Your task to perform on an android device: Empty the shopping cart on bestbuy.com. Search for "acer nitro" on bestbuy.com, select the first entry, add it to the cart, then select checkout. Image 0: 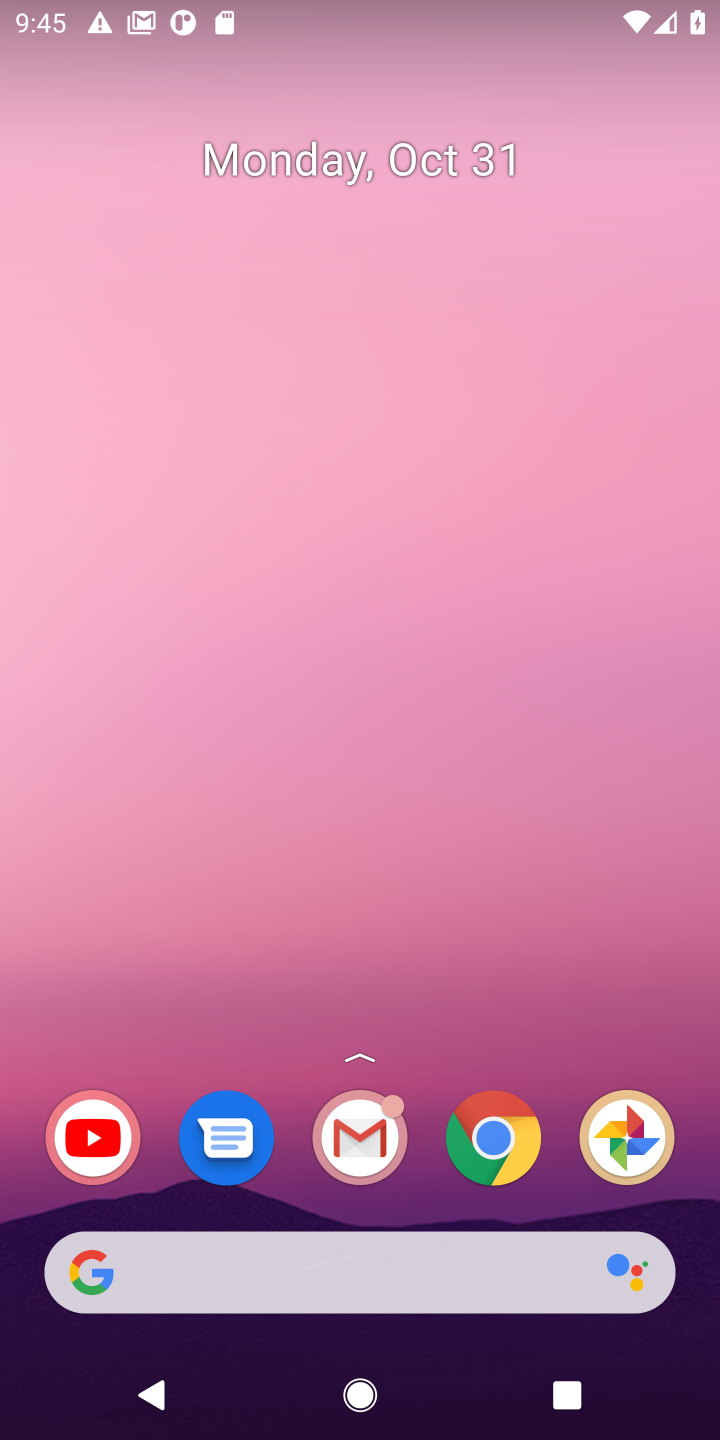
Step 0: drag from (441, 1345) to (407, 152)
Your task to perform on an android device: Empty the shopping cart on bestbuy.com. Search for "acer nitro" on bestbuy.com, select the first entry, add it to the cart, then select checkout. Image 1: 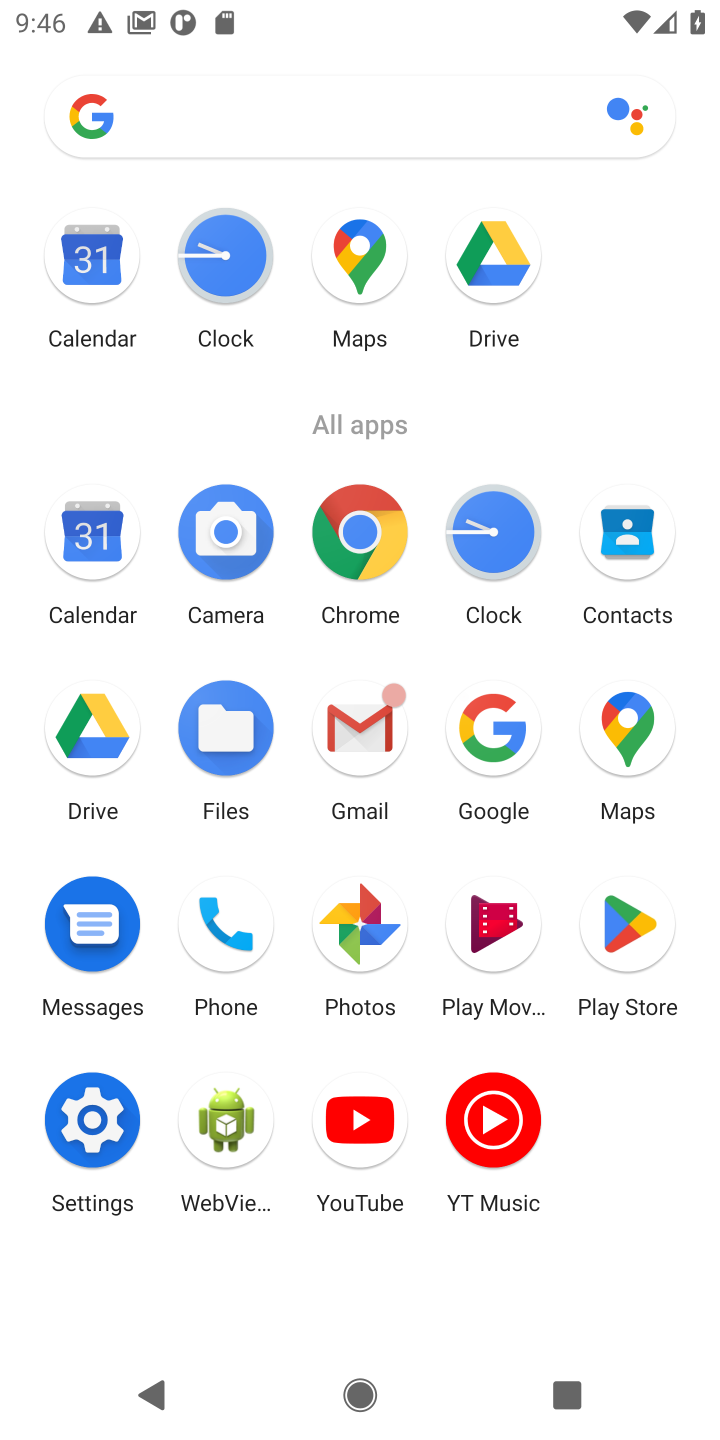
Step 1: click (369, 538)
Your task to perform on an android device: Empty the shopping cart on bestbuy.com. Search for "acer nitro" on bestbuy.com, select the first entry, add it to the cart, then select checkout. Image 2: 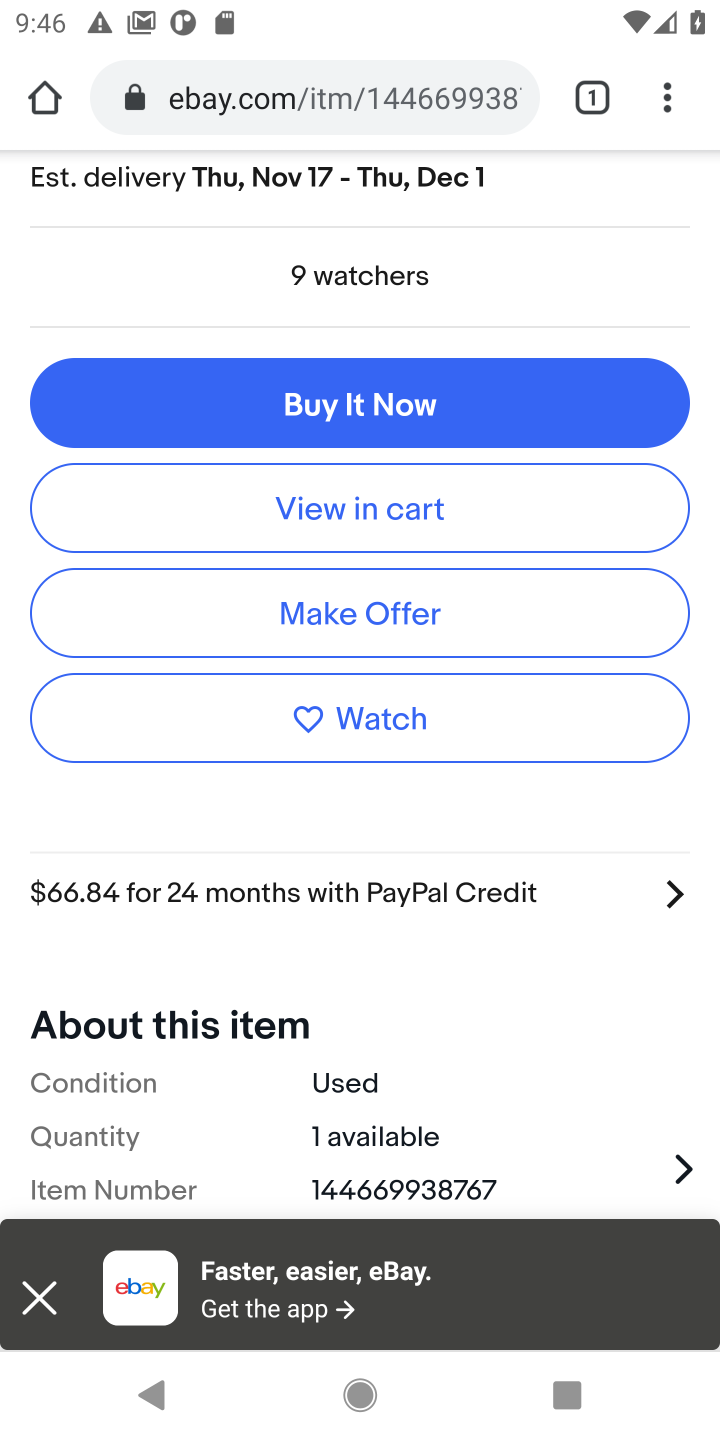
Step 2: click (367, 98)
Your task to perform on an android device: Empty the shopping cart on bestbuy.com. Search for "acer nitro" on bestbuy.com, select the first entry, add it to the cart, then select checkout. Image 3: 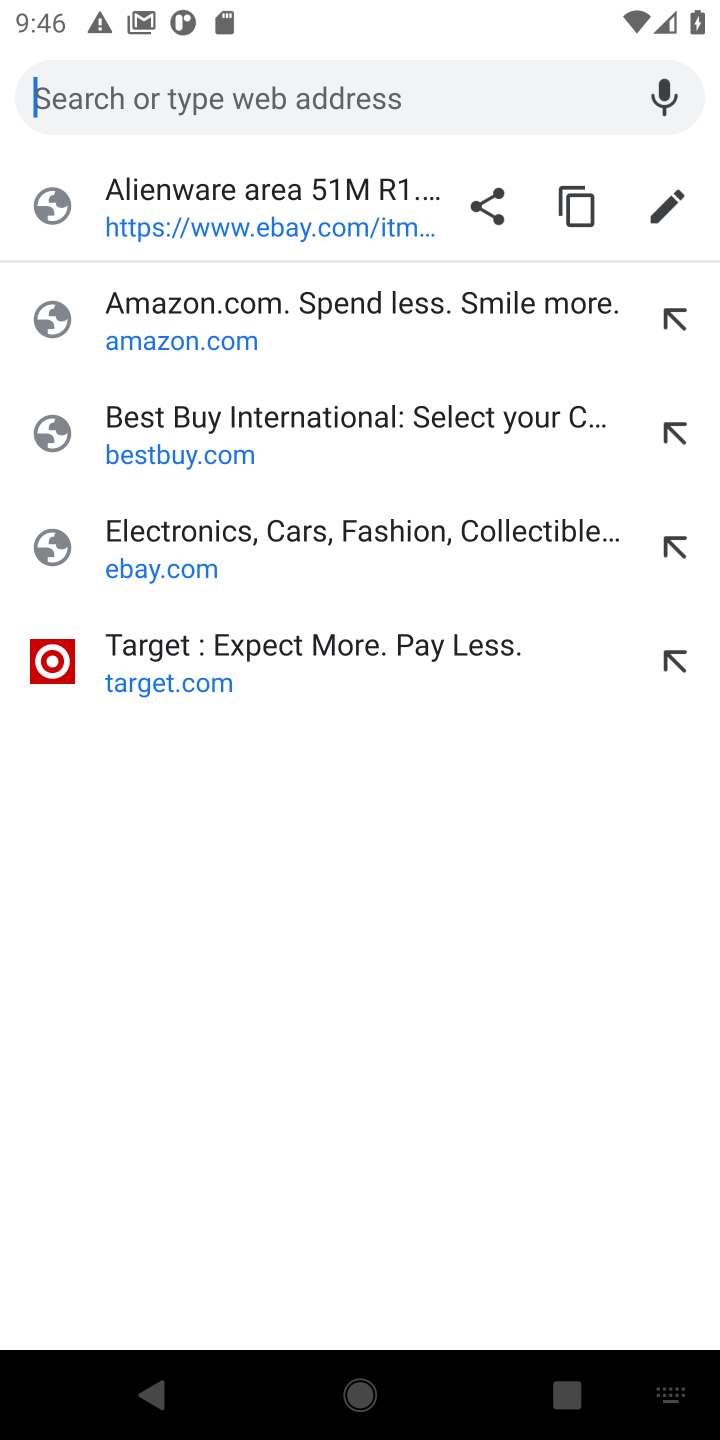
Step 3: type " bestbuy.com"
Your task to perform on an android device: Empty the shopping cart on bestbuy.com. Search for "acer nitro" on bestbuy.com, select the first entry, add it to the cart, then select checkout. Image 4: 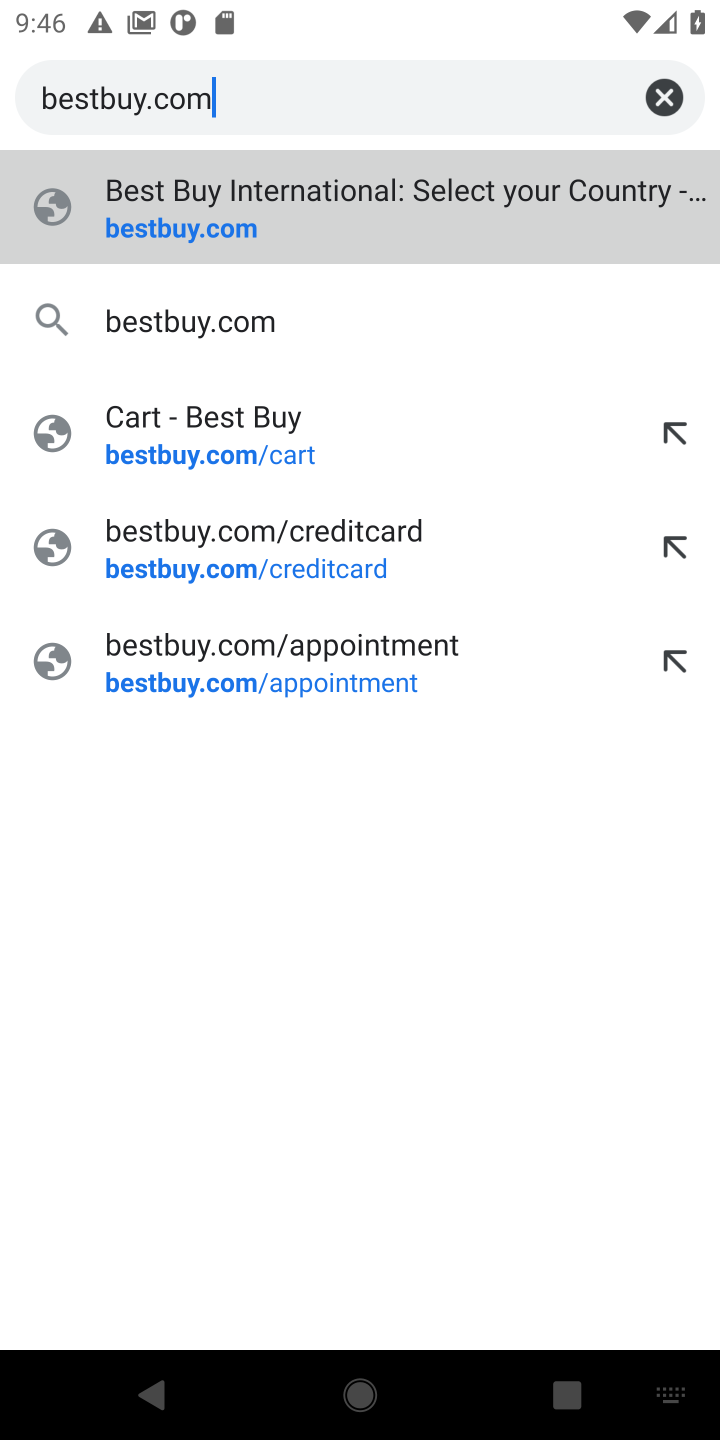
Step 4: click (189, 231)
Your task to perform on an android device: Empty the shopping cart on bestbuy.com. Search for "acer nitro" on bestbuy.com, select the first entry, add it to the cart, then select checkout. Image 5: 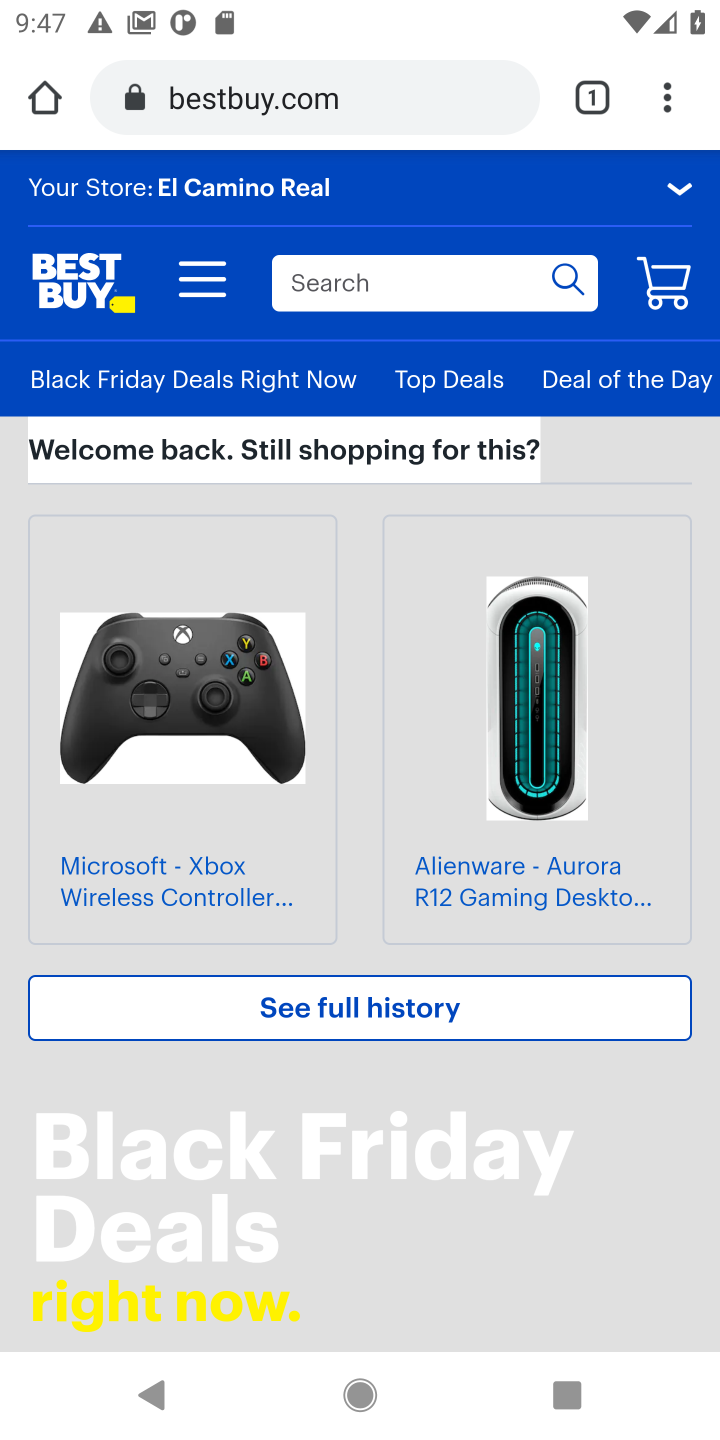
Step 5: click (431, 279)
Your task to perform on an android device: Empty the shopping cart on bestbuy.com. Search for "acer nitro" on bestbuy.com, select the first entry, add it to the cart, then select checkout. Image 6: 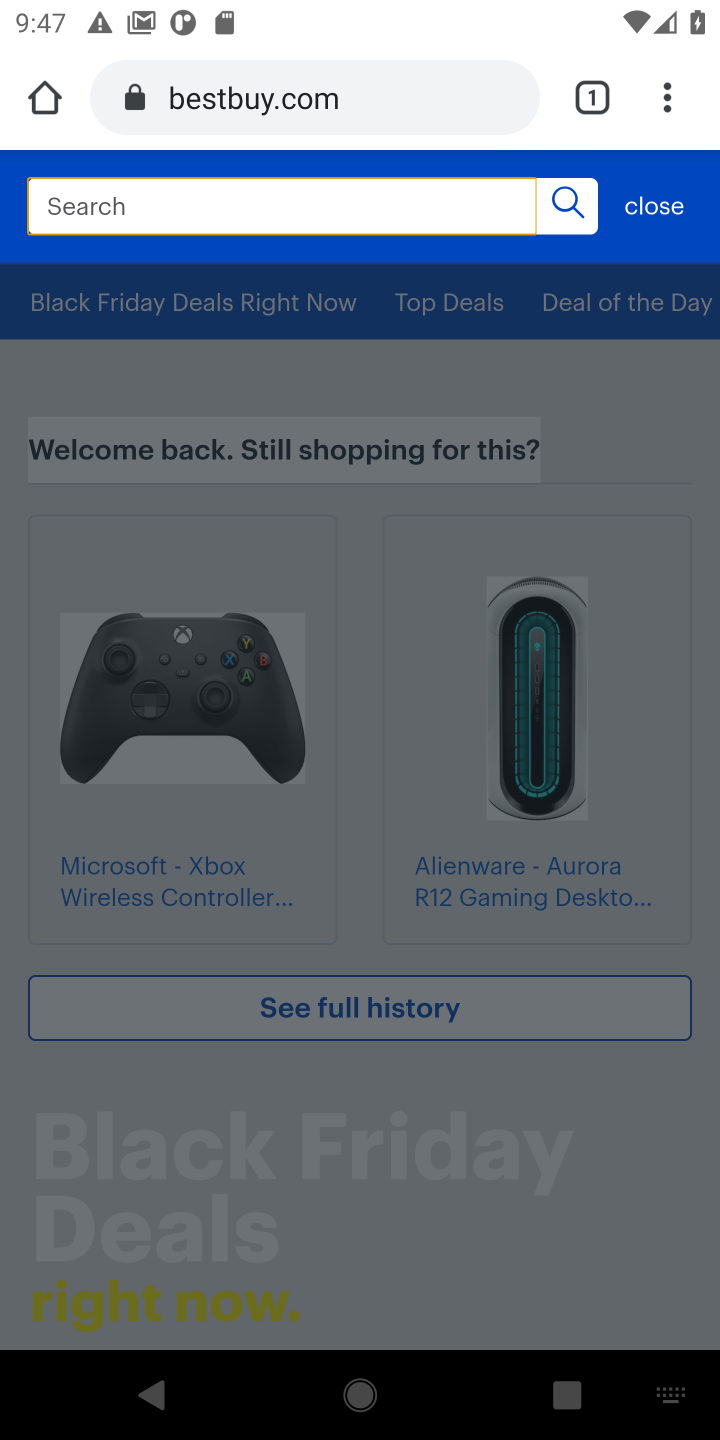
Step 6: type "acer nitro"
Your task to perform on an android device: Empty the shopping cart on bestbuy.com. Search for "acer nitro" on bestbuy.com, select the first entry, add it to the cart, then select checkout. Image 7: 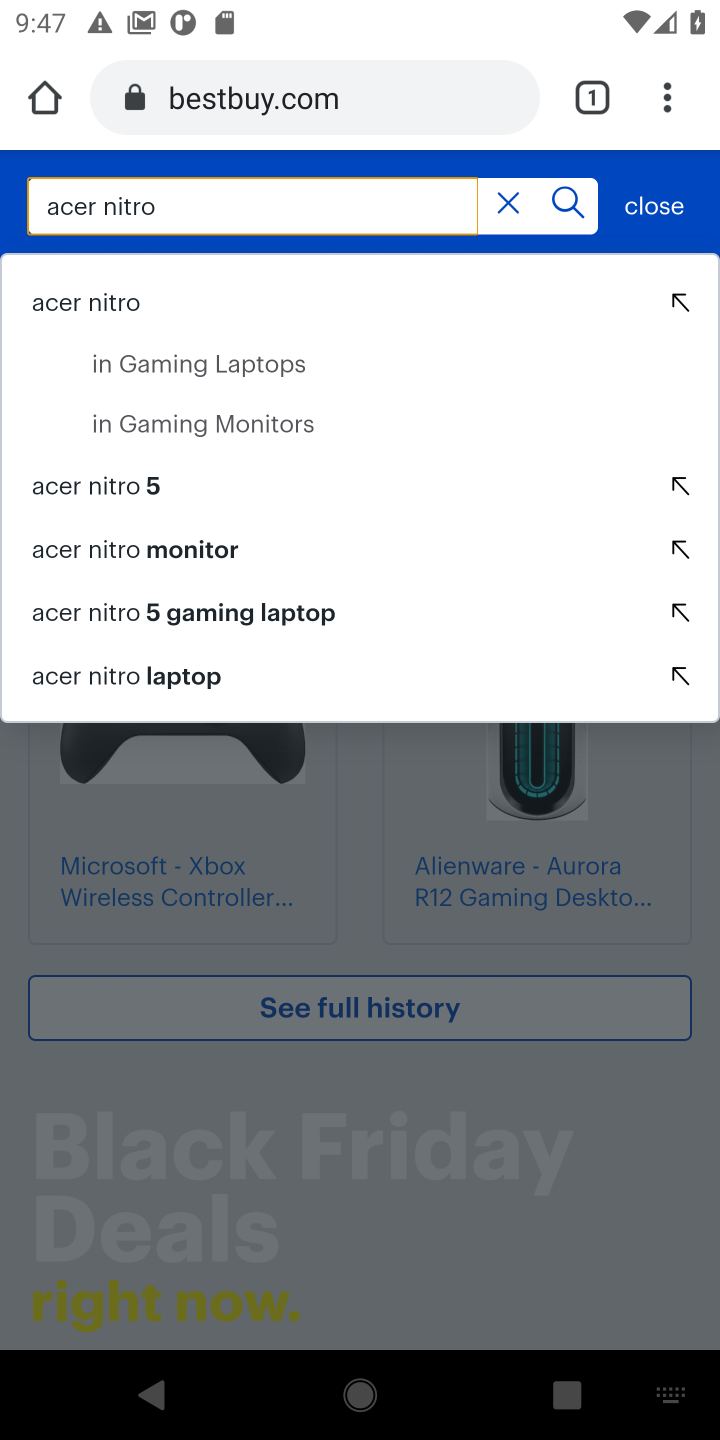
Step 7: click (105, 306)
Your task to perform on an android device: Empty the shopping cart on bestbuy.com. Search for "acer nitro" on bestbuy.com, select the first entry, add it to the cart, then select checkout. Image 8: 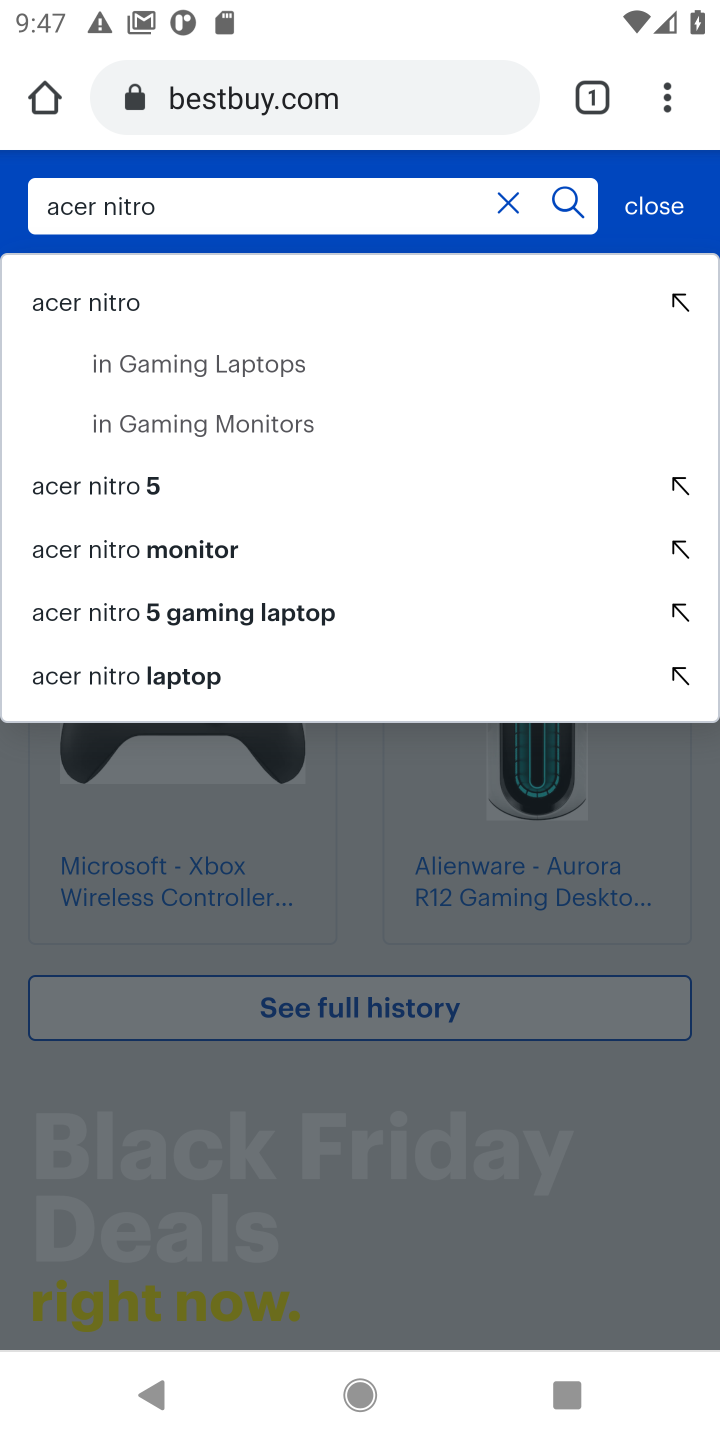
Step 8: click (564, 199)
Your task to perform on an android device: Empty the shopping cart on bestbuy.com. Search for "acer nitro" on bestbuy.com, select the first entry, add it to the cart, then select checkout. Image 9: 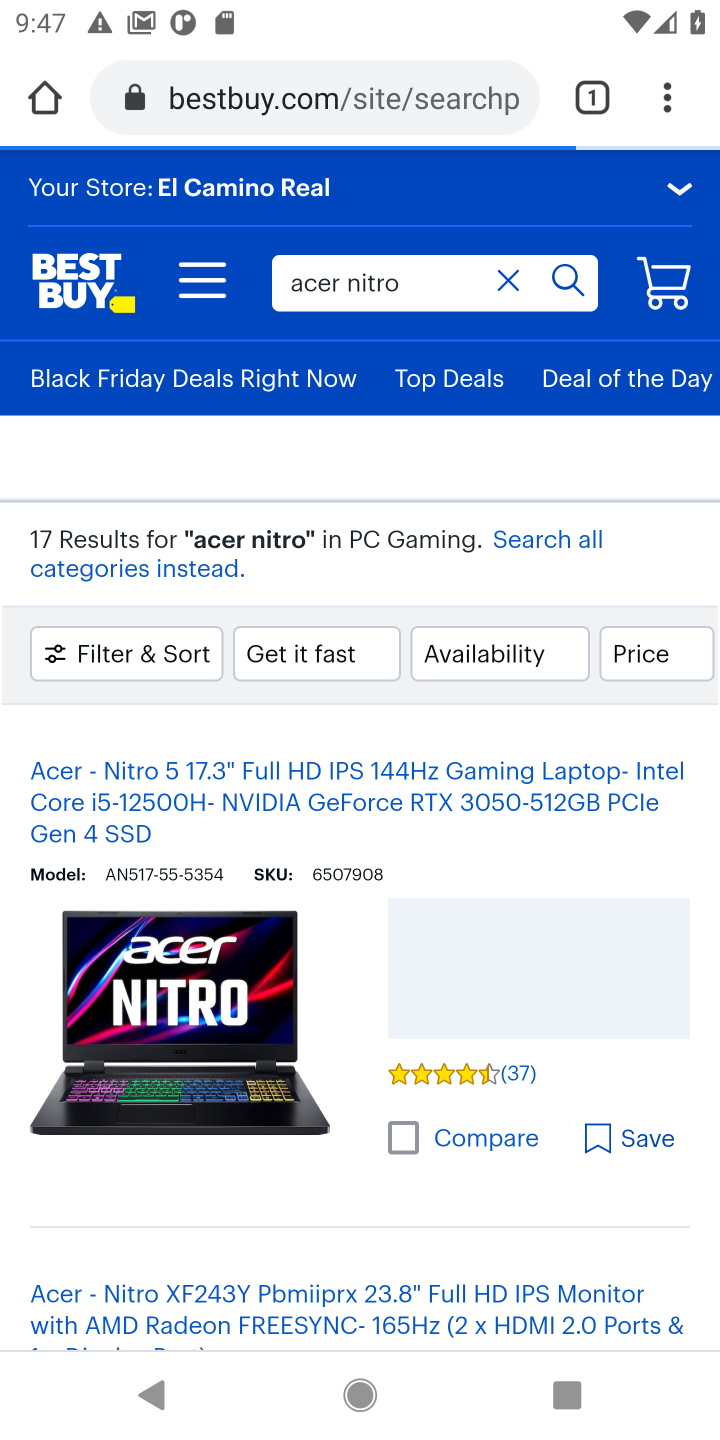
Step 9: drag from (385, 842) to (451, 423)
Your task to perform on an android device: Empty the shopping cart on bestbuy.com. Search for "acer nitro" on bestbuy.com, select the first entry, add it to the cart, then select checkout. Image 10: 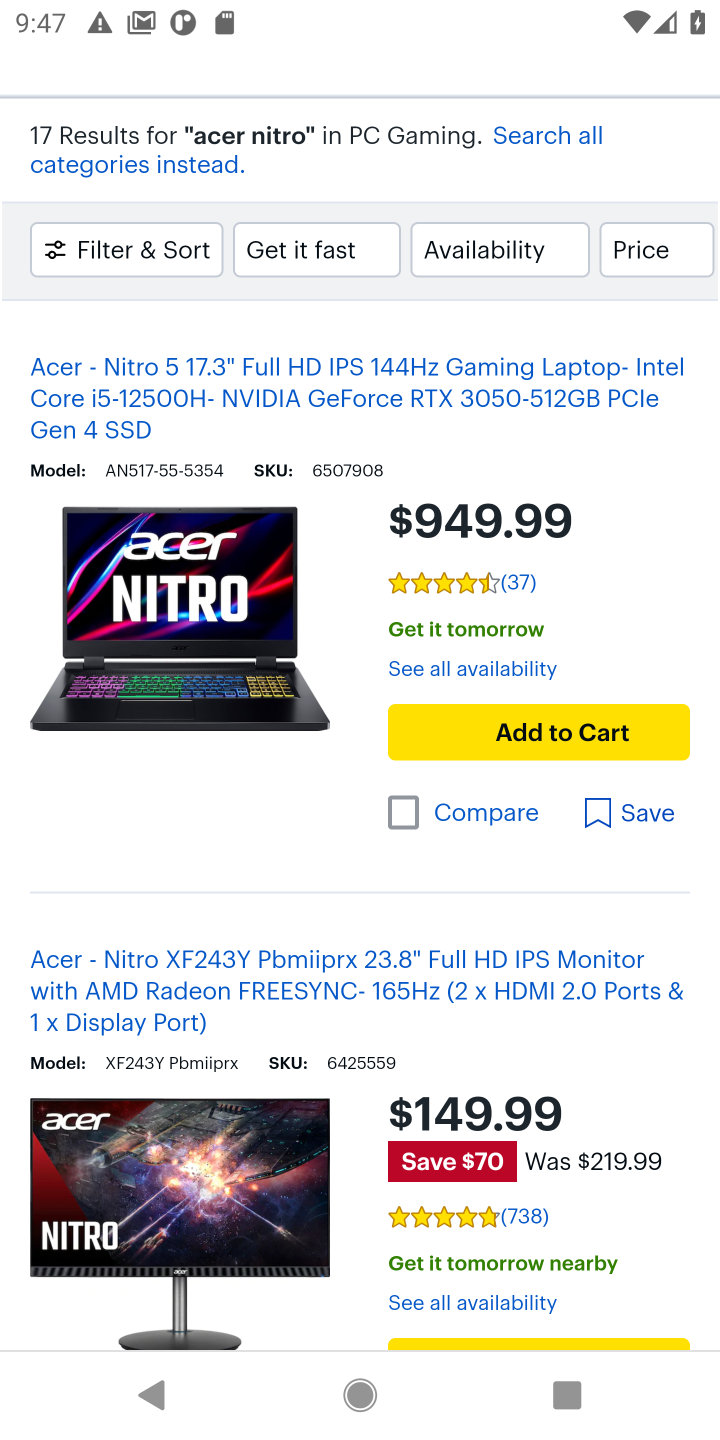
Step 10: click (174, 564)
Your task to perform on an android device: Empty the shopping cart on bestbuy.com. Search for "acer nitro" on bestbuy.com, select the first entry, add it to the cart, then select checkout. Image 11: 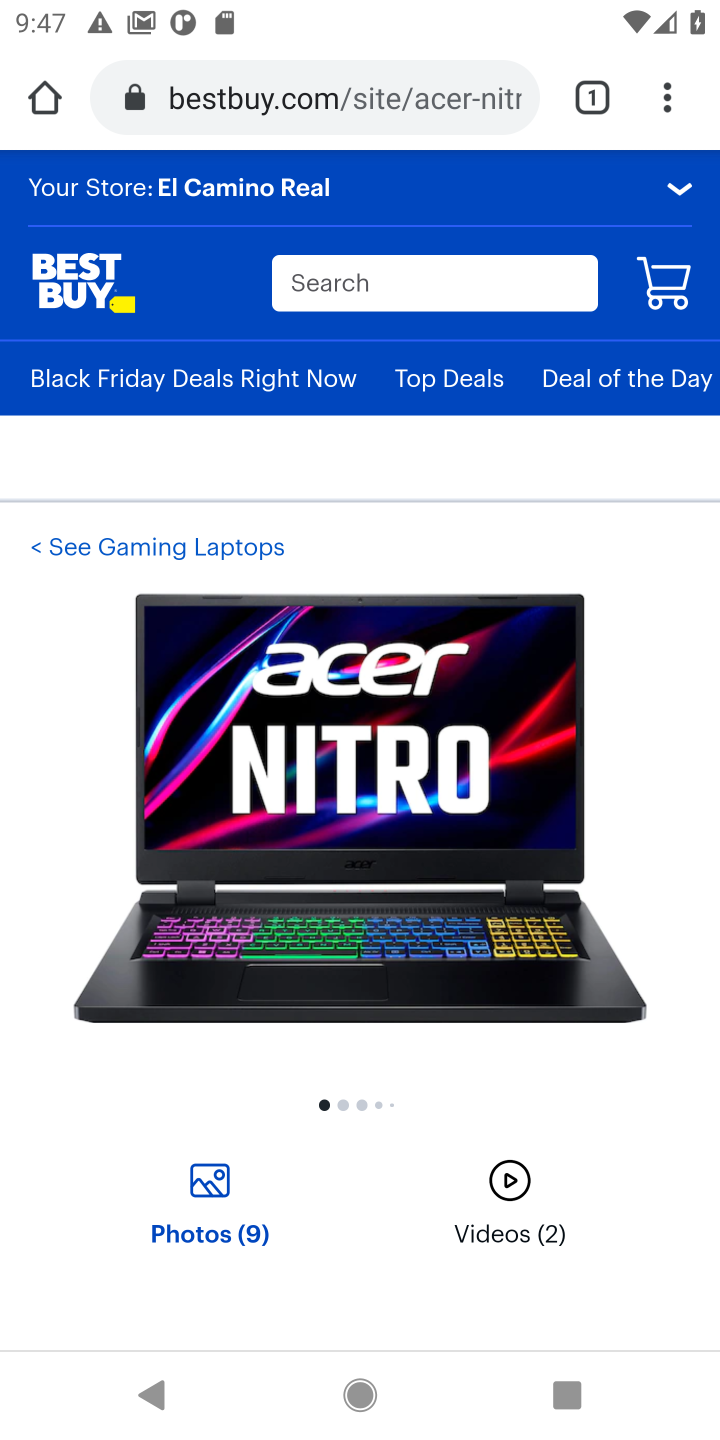
Step 11: drag from (485, 830) to (474, 305)
Your task to perform on an android device: Empty the shopping cart on bestbuy.com. Search for "acer nitro" on bestbuy.com, select the first entry, add it to the cart, then select checkout. Image 12: 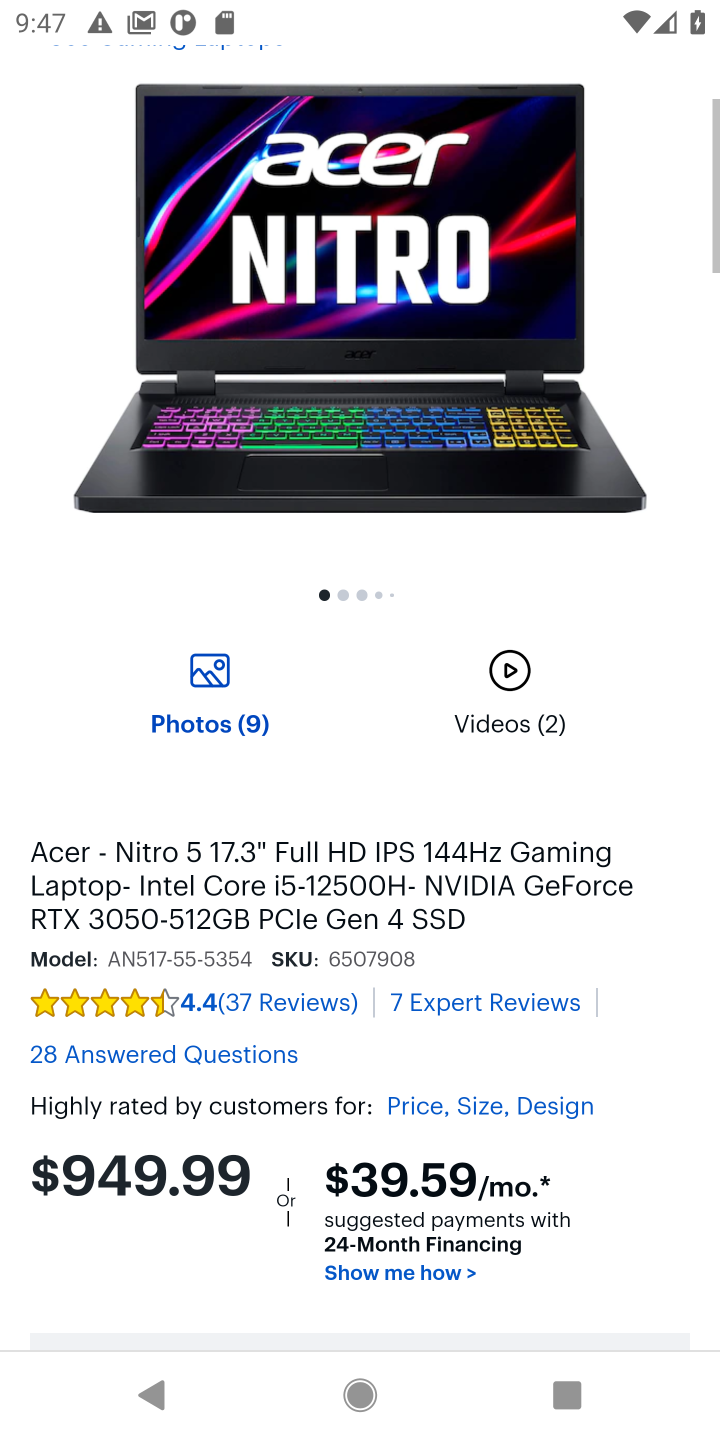
Step 12: drag from (402, 730) to (449, 327)
Your task to perform on an android device: Empty the shopping cart on bestbuy.com. Search for "acer nitro" on bestbuy.com, select the first entry, add it to the cart, then select checkout. Image 13: 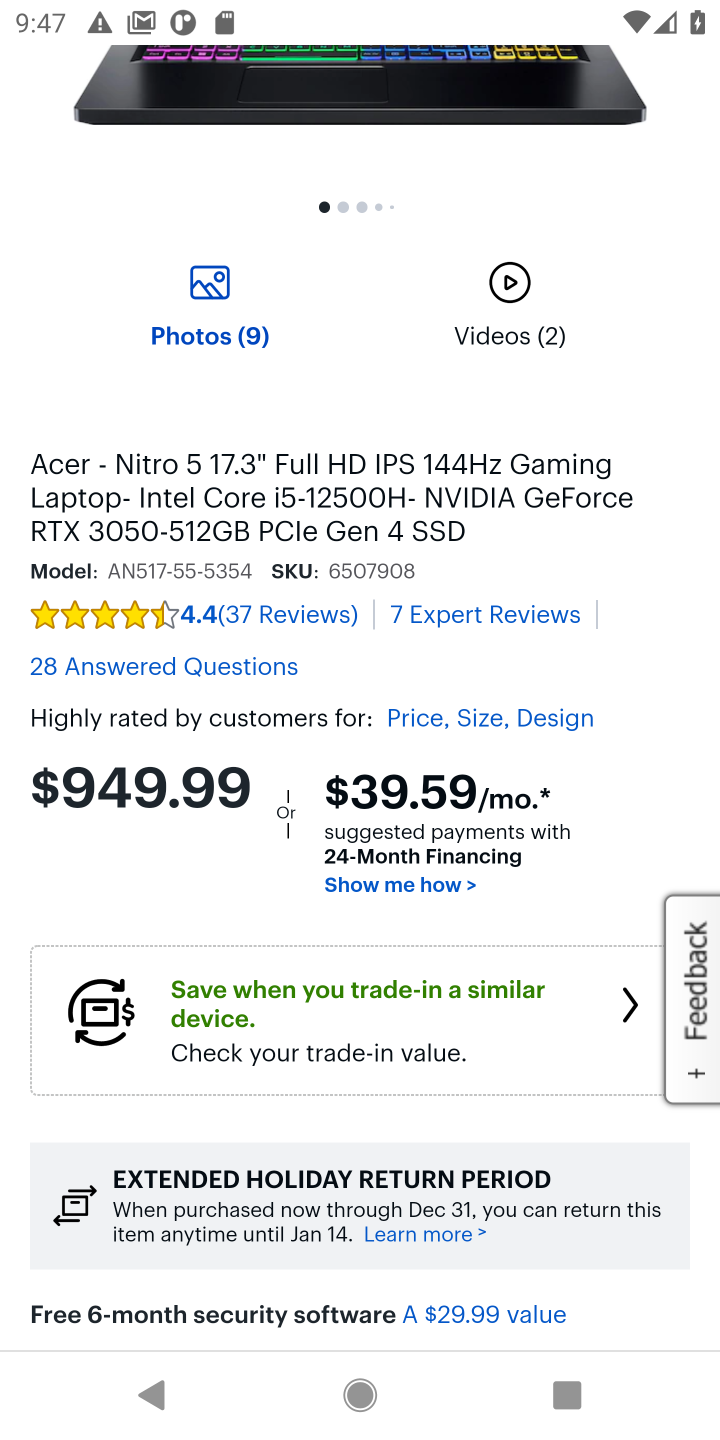
Step 13: drag from (346, 887) to (356, 315)
Your task to perform on an android device: Empty the shopping cart on bestbuy.com. Search for "acer nitro" on bestbuy.com, select the first entry, add it to the cart, then select checkout. Image 14: 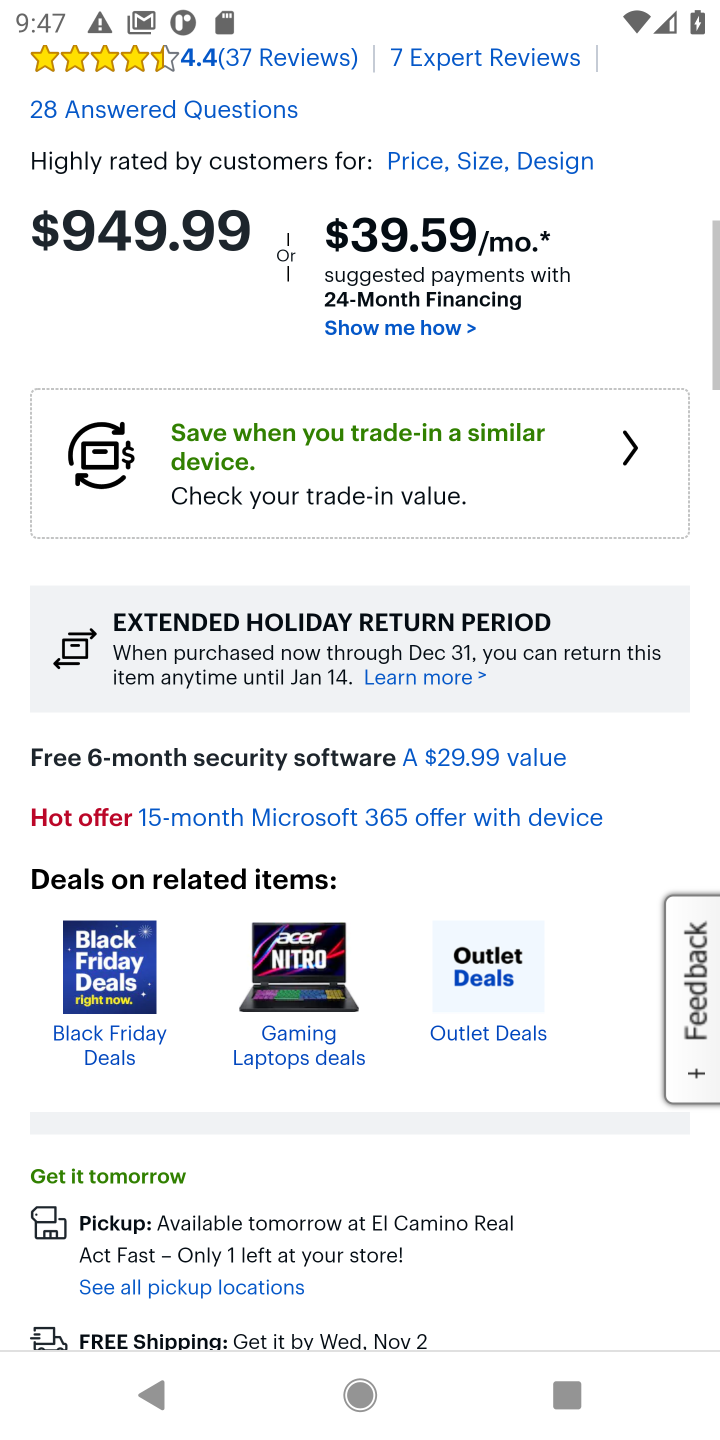
Step 14: drag from (309, 812) to (375, 350)
Your task to perform on an android device: Empty the shopping cart on bestbuy.com. Search for "acer nitro" on bestbuy.com, select the first entry, add it to the cart, then select checkout. Image 15: 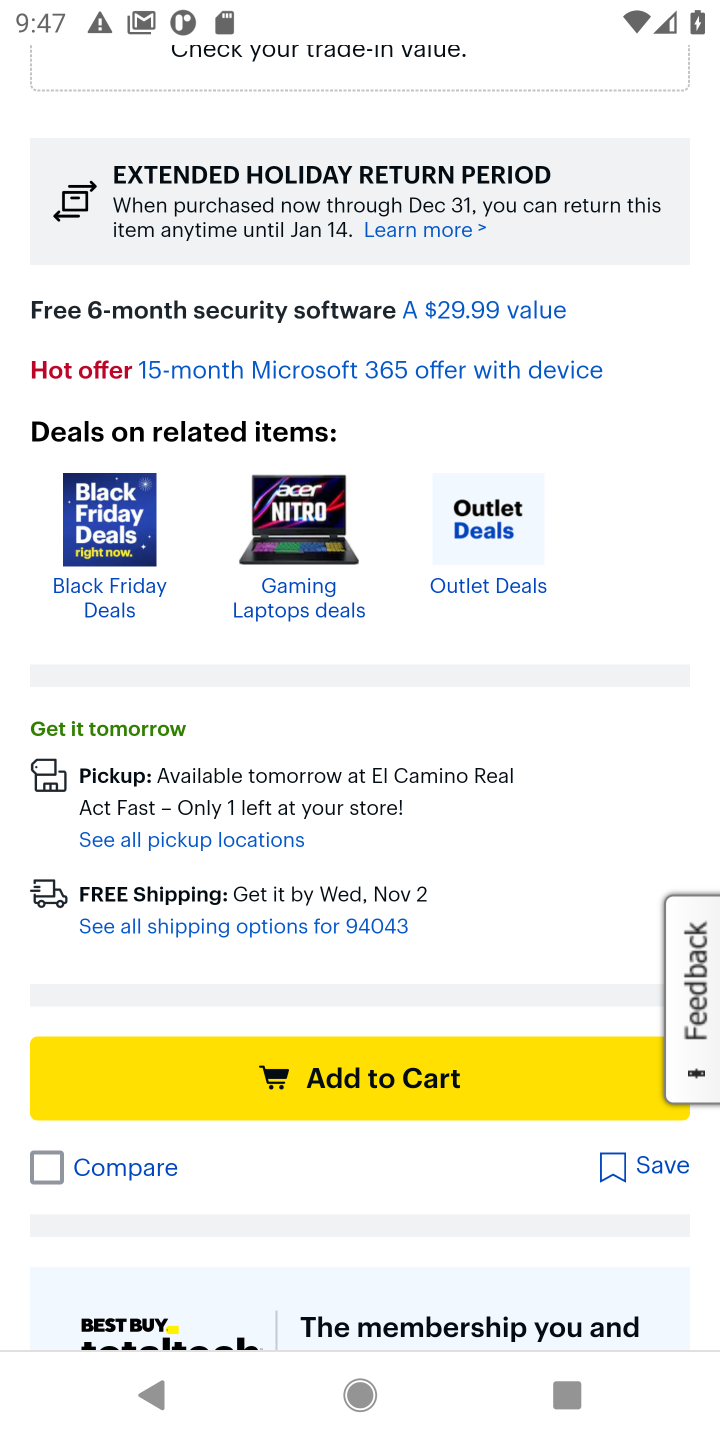
Step 15: click (340, 1067)
Your task to perform on an android device: Empty the shopping cart on bestbuy.com. Search for "acer nitro" on bestbuy.com, select the first entry, add it to the cart, then select checkout. Image 16: 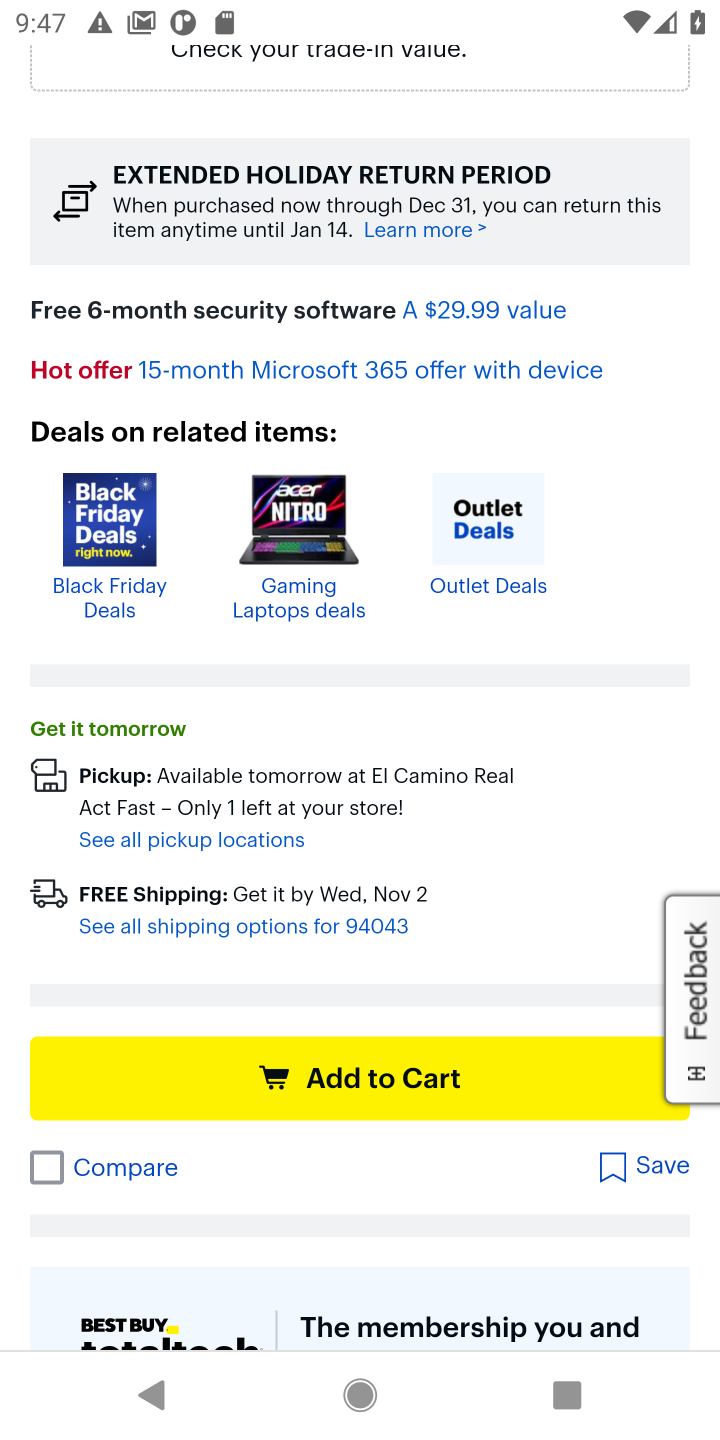
Step 16: task complete